Your task to perform on an android device: Open Youtube and go to "Your channel" Image 0: 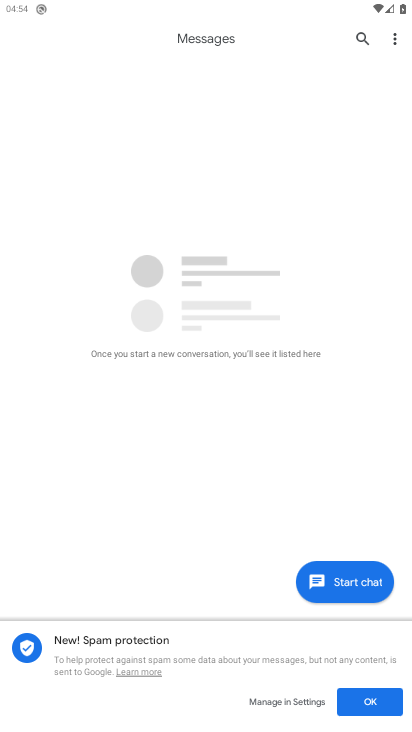
Step 0: press home button
Your task to perform on an android device: Open Youtube and go to "Your channel" Image 1: 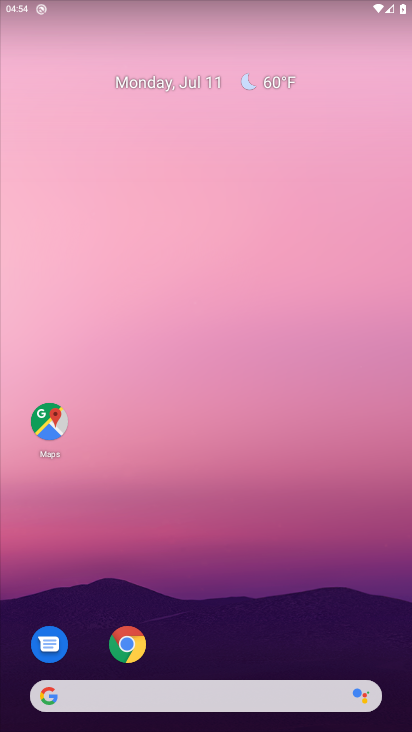
Step 1: drag from (162, 642) to (161, 291)
Your task to perform on an android device: Open Youtube and go to "Your channel" Image 2: 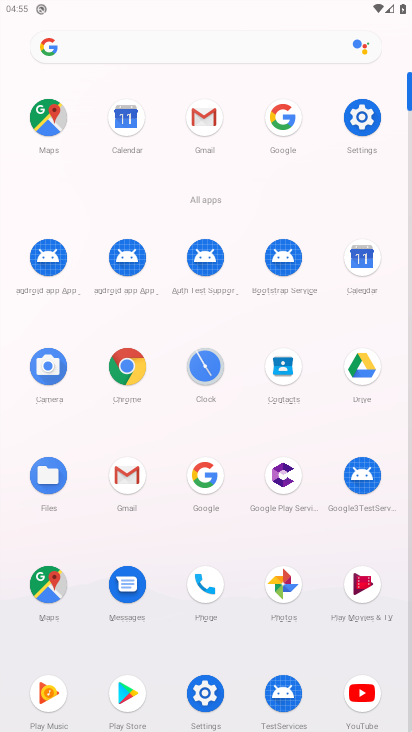
Step 2: click (366, 693)
Your task to perform on an android device: Open Youtube and go to "Your channel" Image 3: 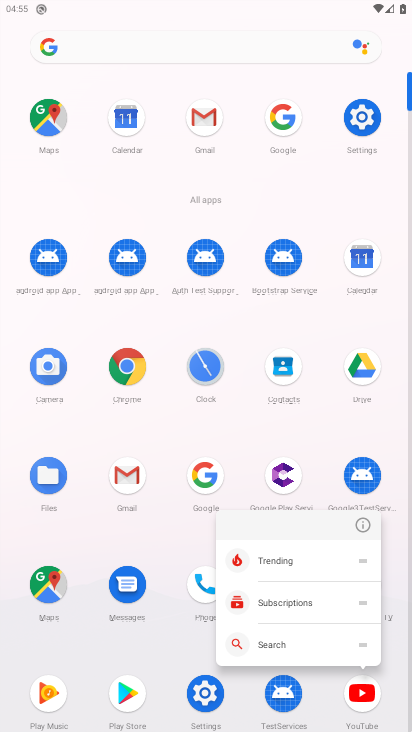
Step 3: click (367, 694)
Your task to perform on an android device: Open Youtube and go to "Your channel" Image 4: 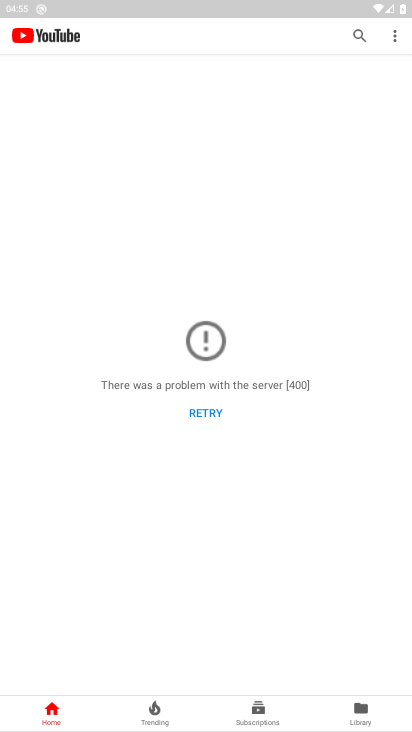
Step 4: click (397, 28)
Your task to perform on an android device: Open Youtube and go to "Your channel" Image 5: 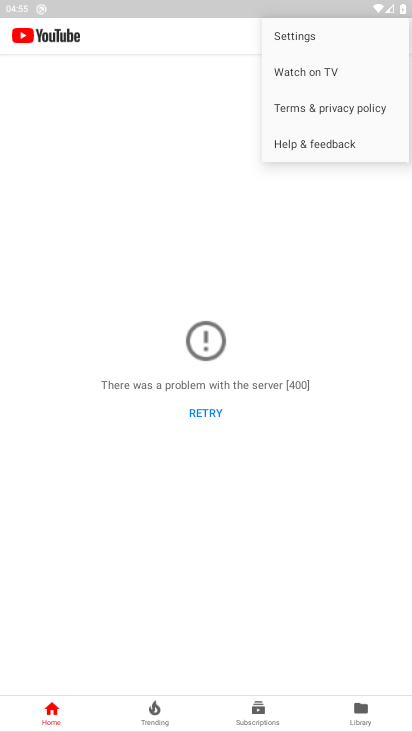
Step 5: click (303, 34)
Your task to perform on an android device: Open Youtube and go to "Your channel" Image 6: 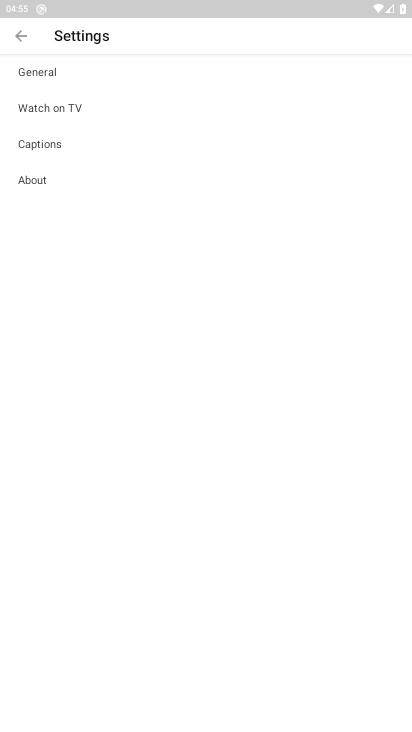
Step 6: task complete